Your task to perform on an android device: Do I have any events tomorrow? Image 0: 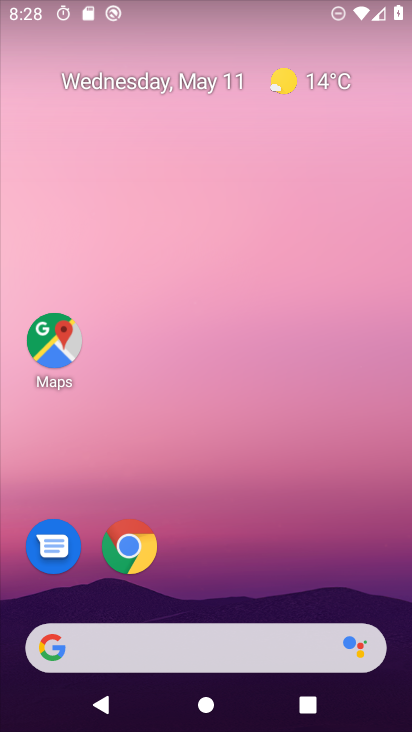
Step 0: drag from (268, 659) to (286, 152)
Your task to perform on an android device: Do I have any events tomorrow? Image 1: 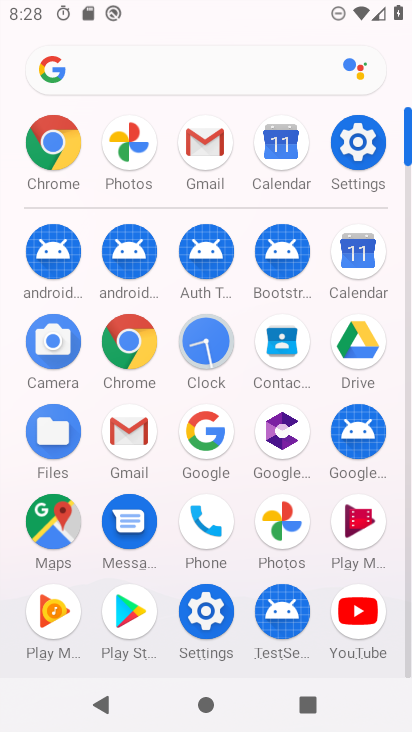
Step 1: click (367, 269)
Your task to perform on an android device: Do I have any events tomorrow? Image 2: 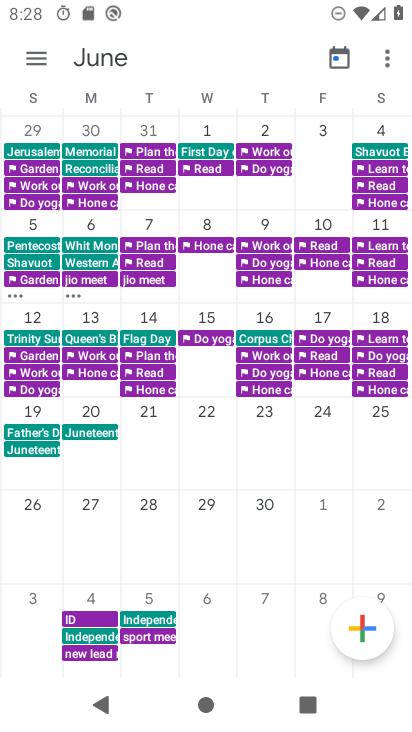
Step 2: click (37, 57)
Your task to perform on an android device: Do I have any events tomorrow? Image 3: 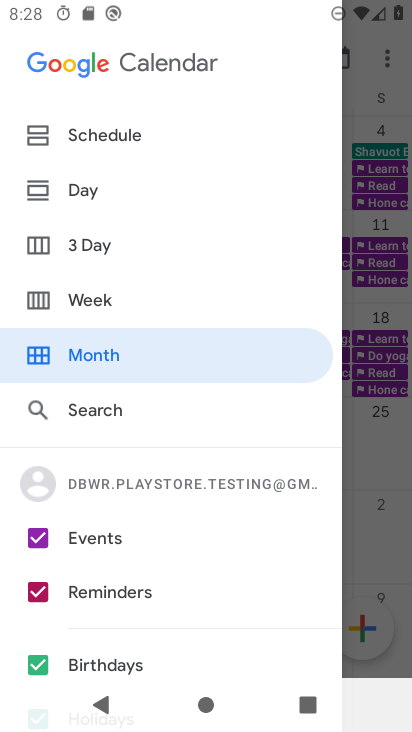
Step 3: click (127, 146)
Your task to perform on an android device: Do I have any events tomorrow? Image 4: 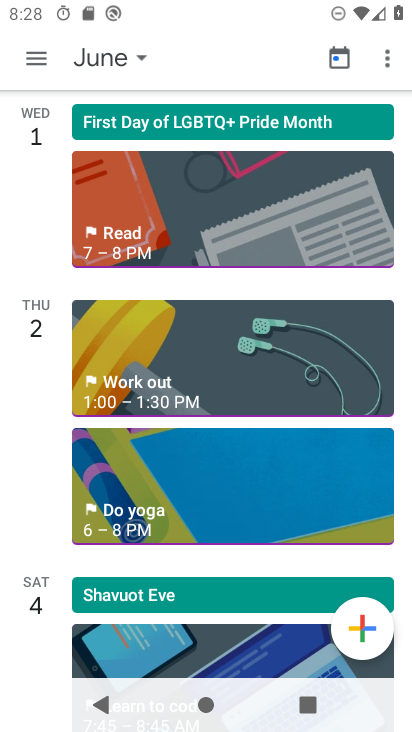
Step 4: click (140, 48)
Your task to perform on an android device: Do I have any events tomorrow? Image 5: 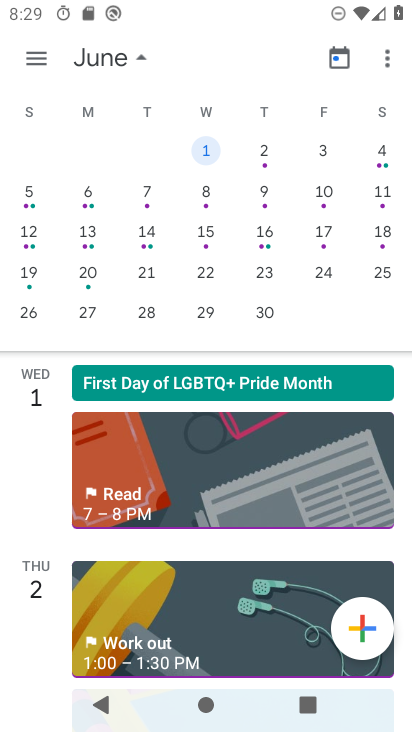
Step 5: drag from (47, 213) to (376, 198)
Your task to perform on an android device: Do I have any events tomorrow? Image 6: 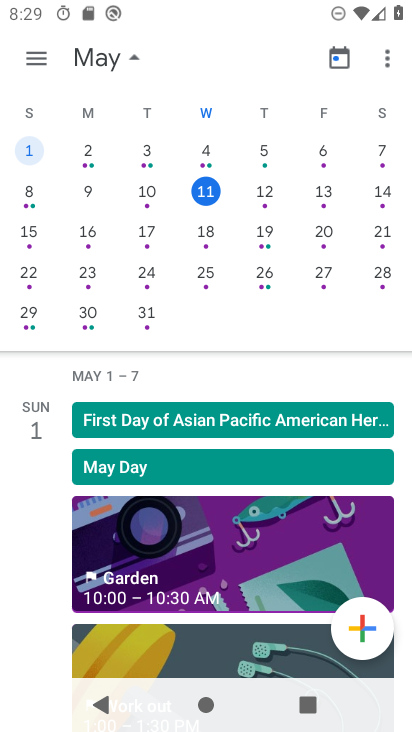
Step 6: click (261, 192)
Your task to perform on an android device: Do I have any events tomorrow? Image 7: 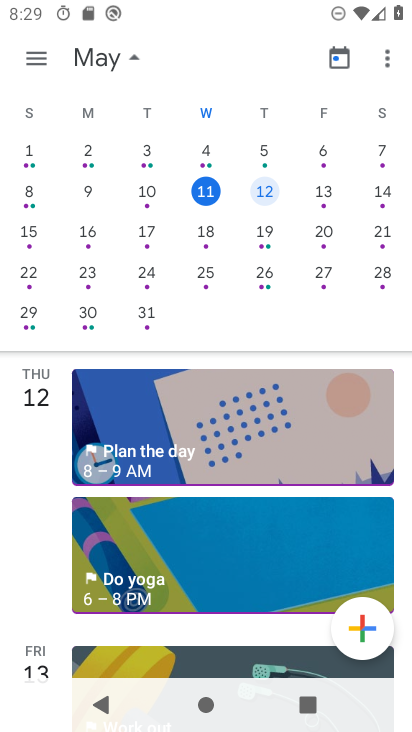
Step 7: click (132, 53)
Your task to perform on an android device: Do I have any events tomorrow? Image 8: 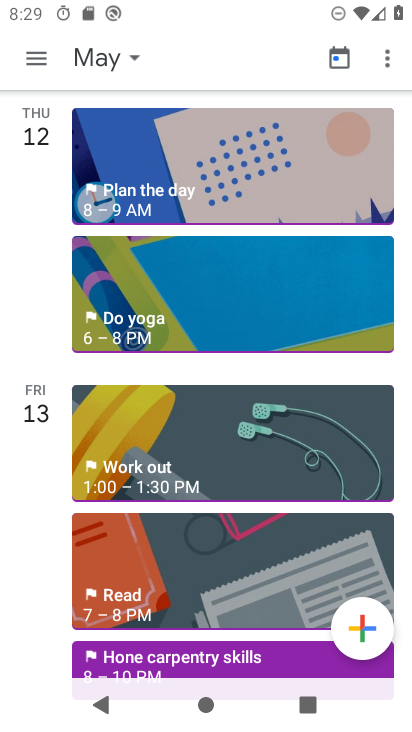
Step 8: task complete